Your task to perform on an android device: toggle wifi Image 0: 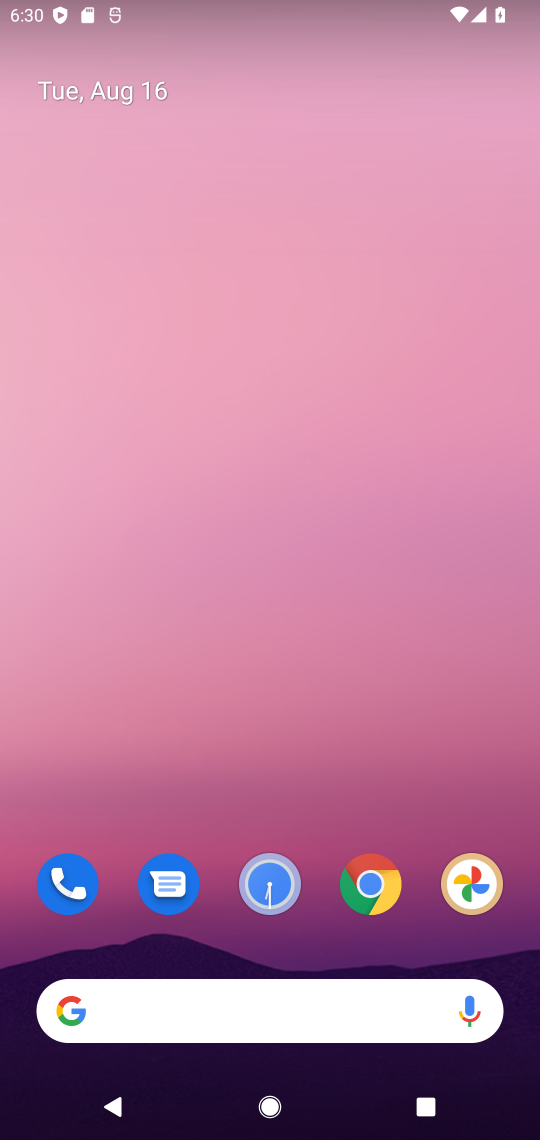
Step 0: press home button
Your task to perform on an android device: toggle wifi Image 1: 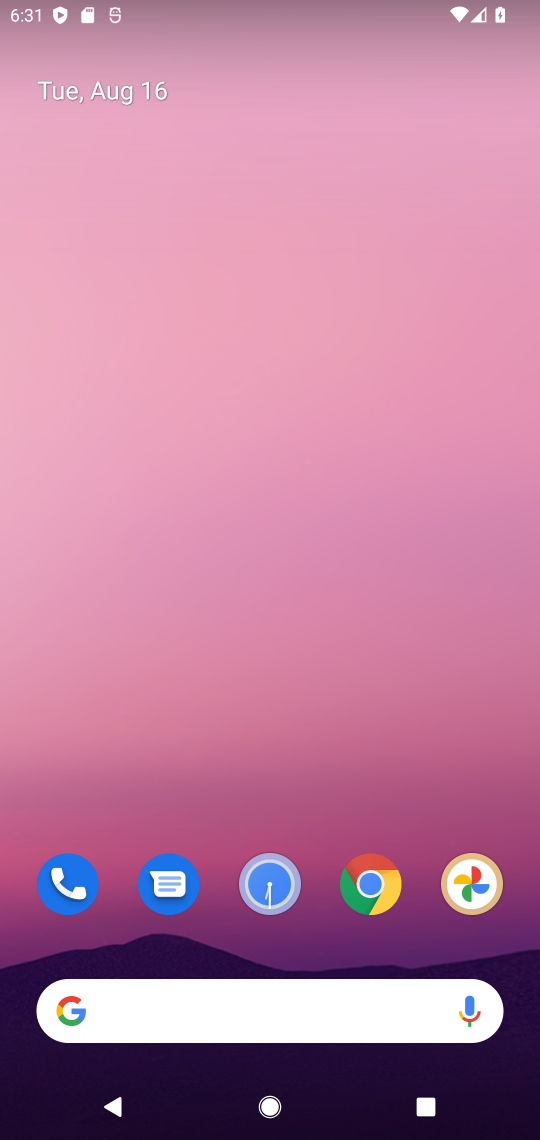
Step 1: drag from (226, 922) to (482, 94)
Your task to perform on an android device: toggle wifi Image 2: 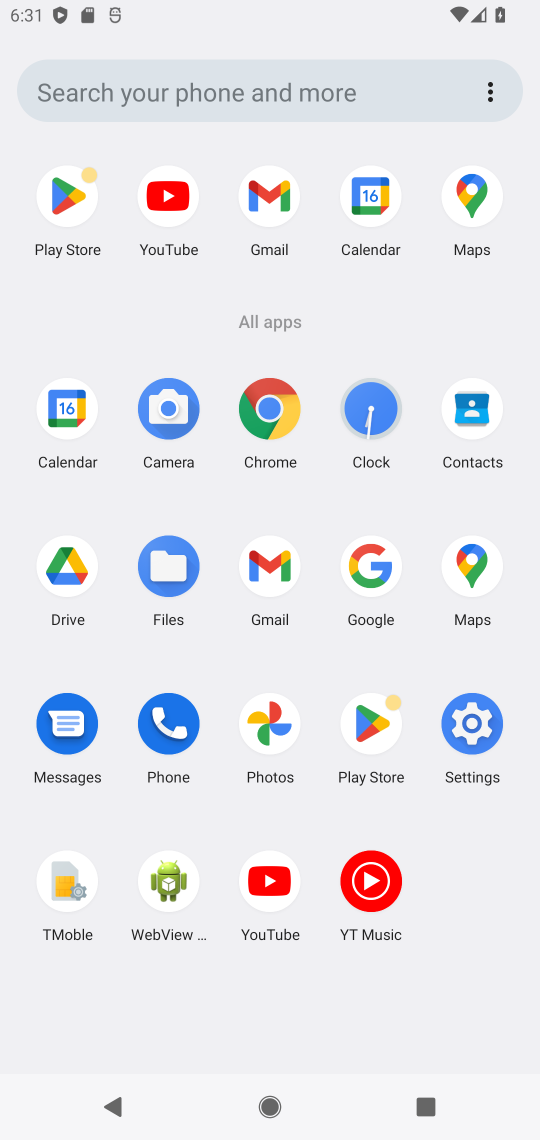
Step 2: click (482, 742)
Your task to perform on an android device: toggle wifi Image 3: 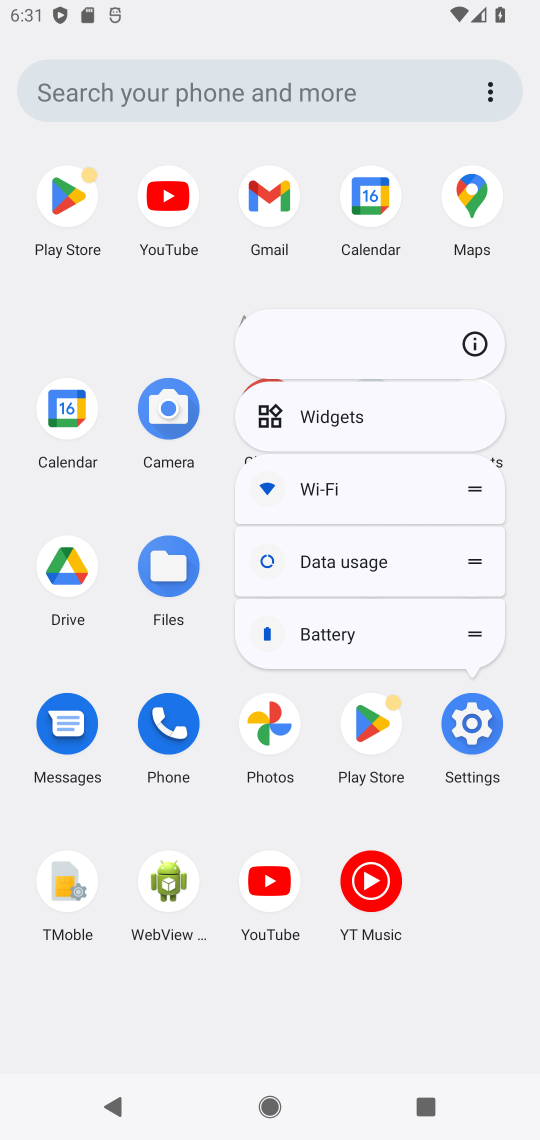
Step 3: click (479, 737)
Your task to perform on an android device: toggle wifi Image 4: 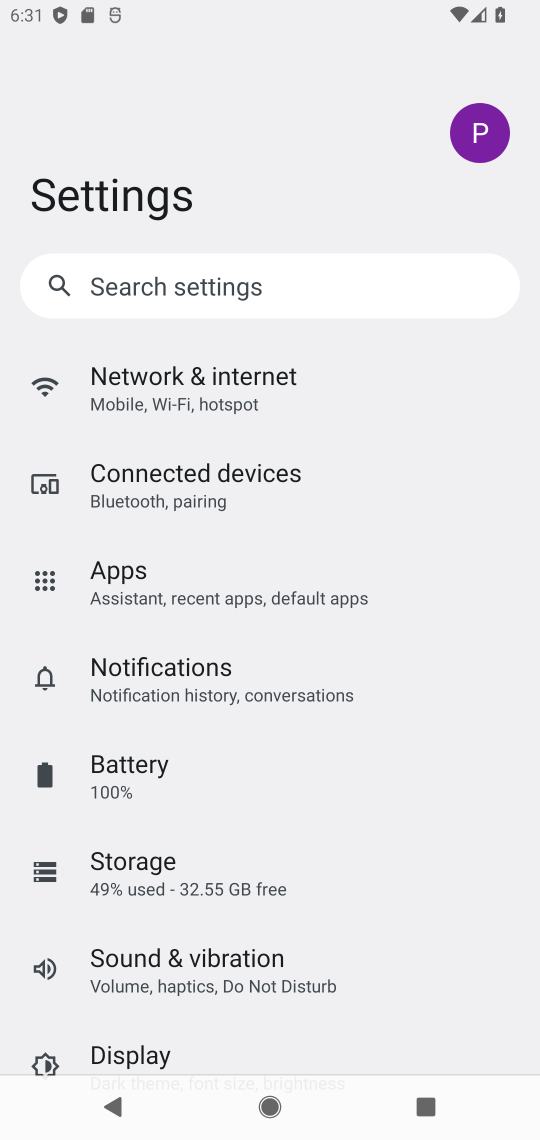
Step 4: click (219, 390)
Your task to perform on an android device: toggle wifi Image 5: 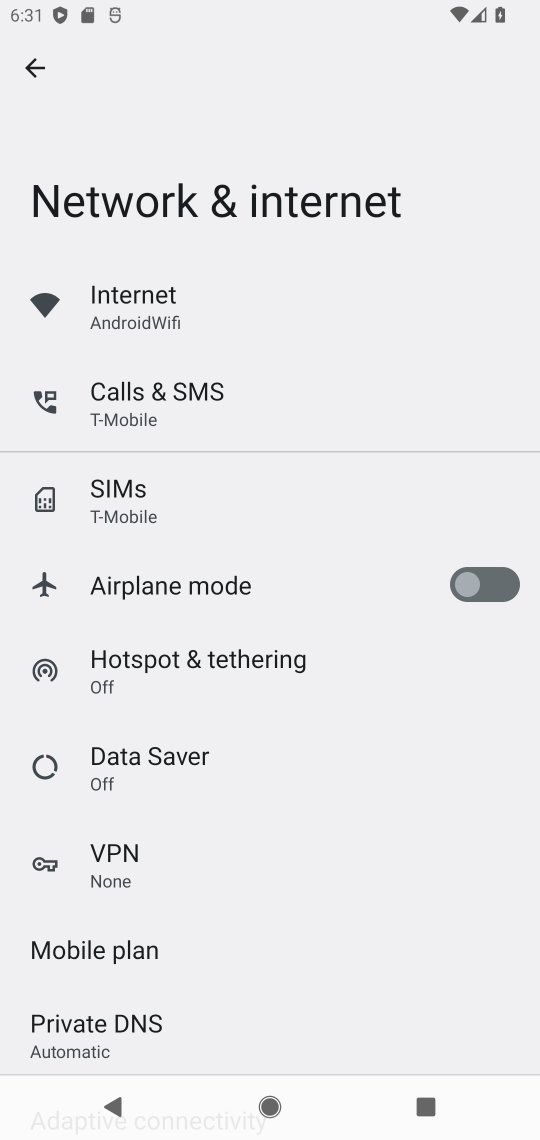
Step 5: click (93, 293)
Your task to perform on an android device: toggle wifi Image 6: 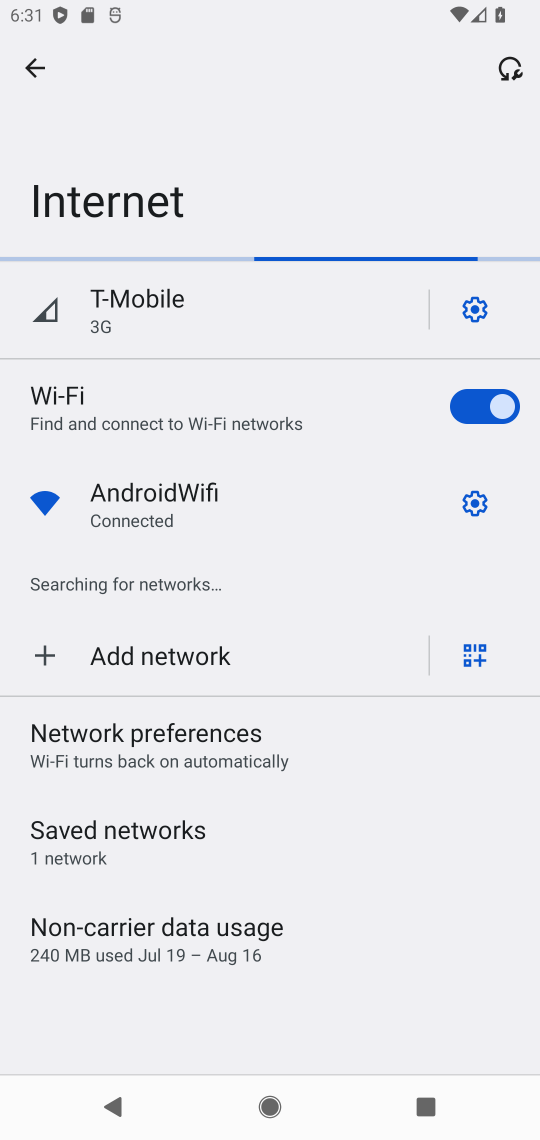
Step 6: click (135, 524)
Your task to perform on an android device: toggle wifi Image 7: 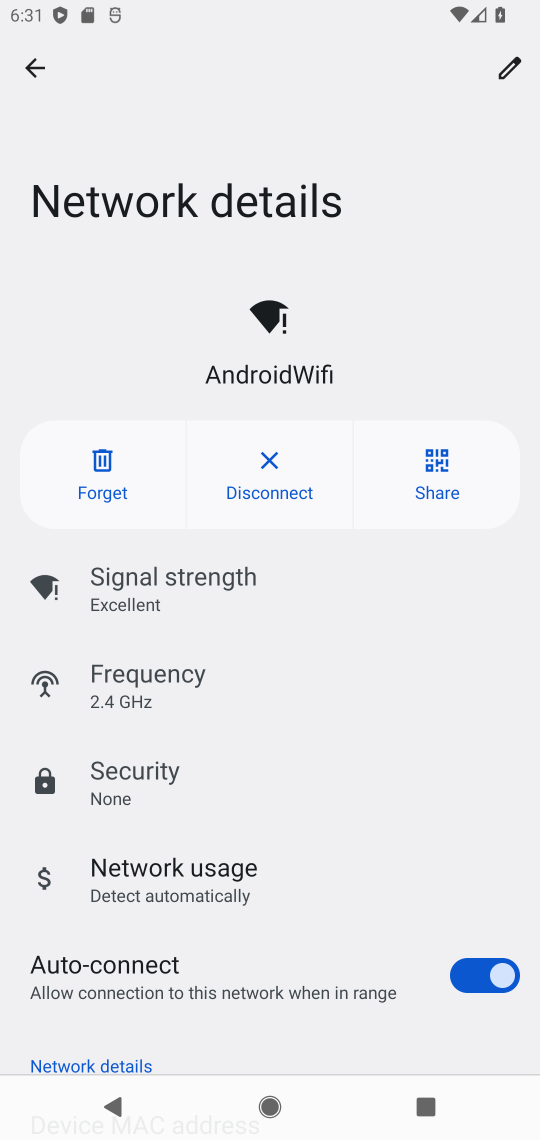
Step 7: click (517, 970)
Your task to perform on an android device: toggle wifi Image 8: 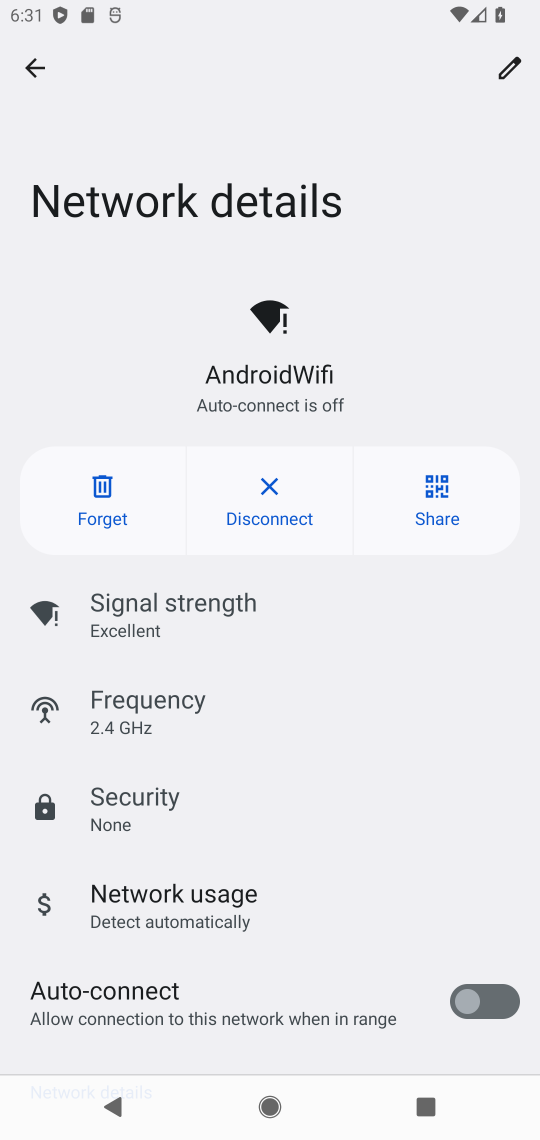
Step 8: task complete